Your task to perform on an android device: check google app version Image 0: 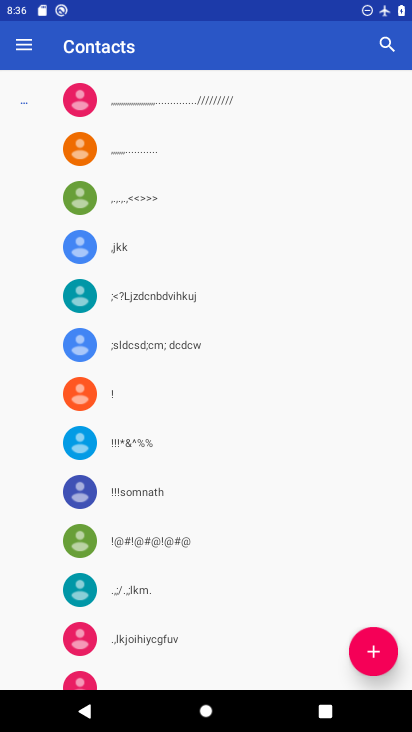
Step 0: press home button
Your task to perform on an android device: check google app version Image 1: 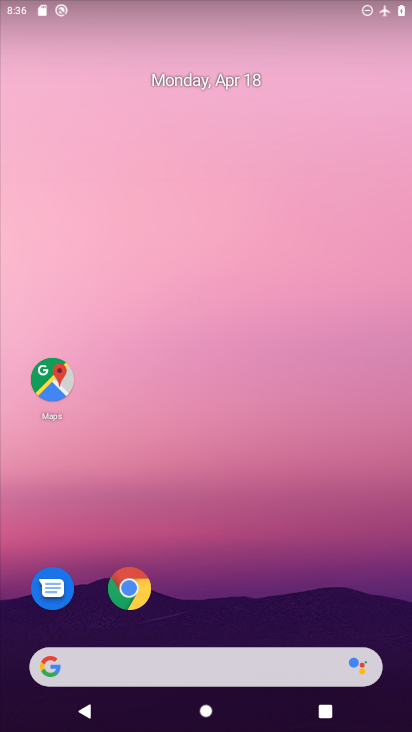
Step 1: drag from (189, 572) to (186, 68)
Your task to perform on an android device: check google app version Image 2: 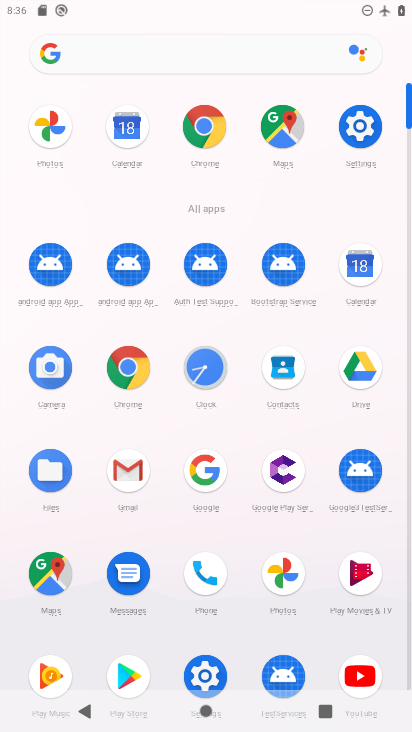
Step 2: click (203, 487)
Your task to perform on an android device: check google app version Image 3: 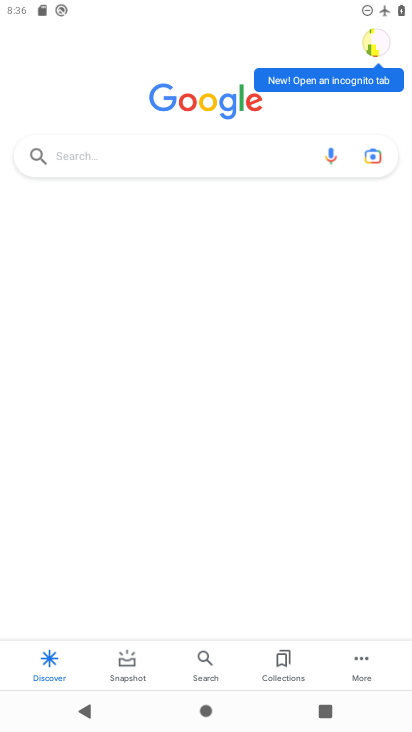
Step 3: click (375, 42)
Your task to perform on an android device: check google app version Image 4: 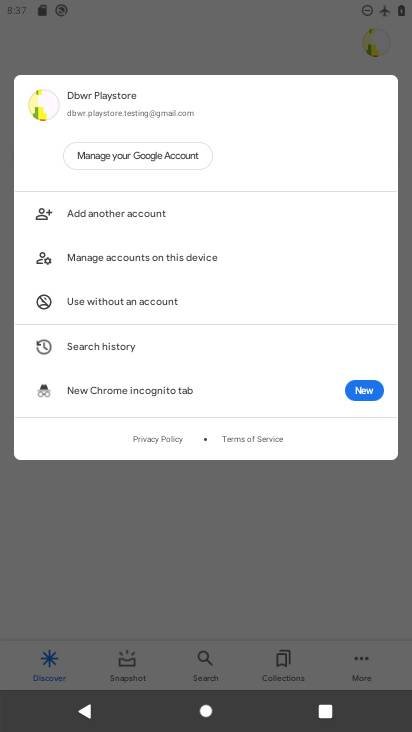
Step 4: click (123, 112)
Your task to perform on an android device: check google app version Image 5: 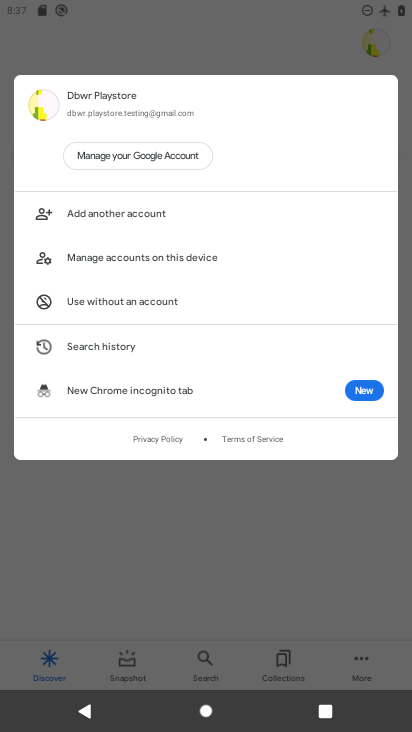
Step 5: click (132, 253)
Your task to perform on an android device: check google app version Image 6: 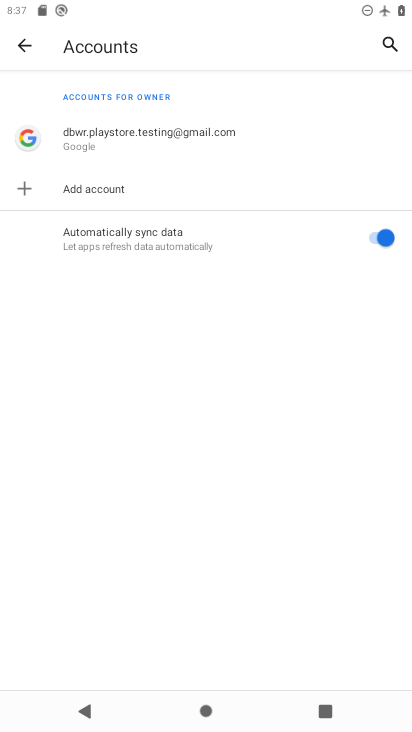
Step 6: click (166, 127)
Your task to perform on an android device: check google app version Image 7: 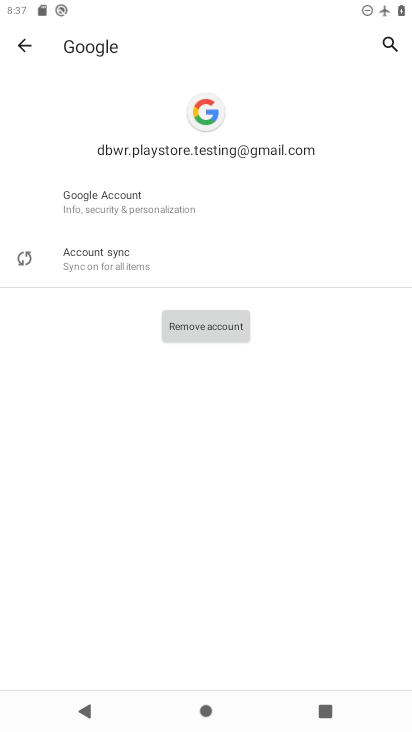
Step 7: click (144, 206)
Your task to perform on an android device: check google app version Image 8: 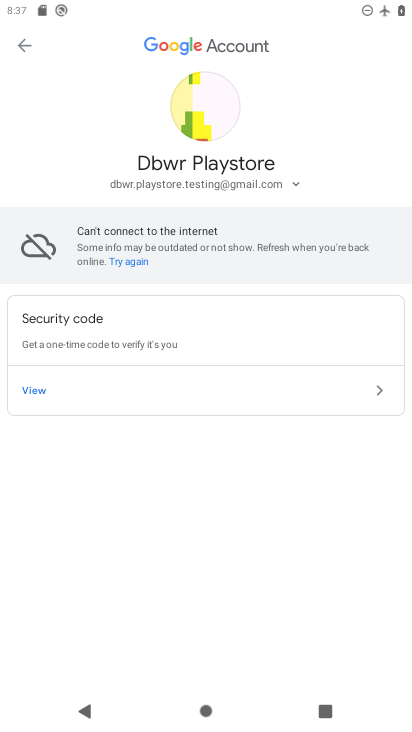
Step 8: click (22, 43)
Your task to perform on an android device: check google app version Image 9: 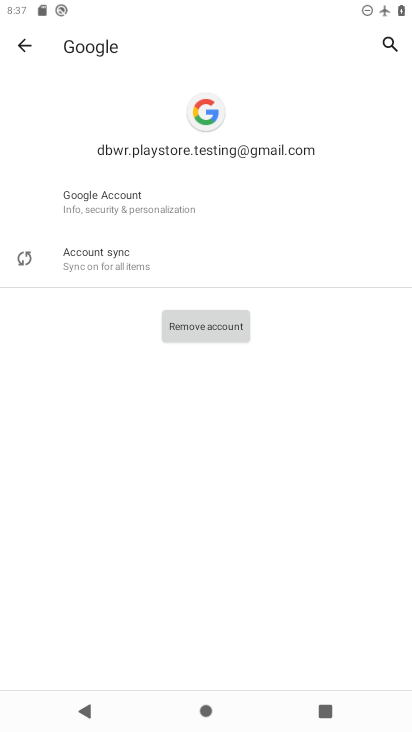
Step 9: click (22, 43)
Your task to perform on an android device: check google app version Image 10: 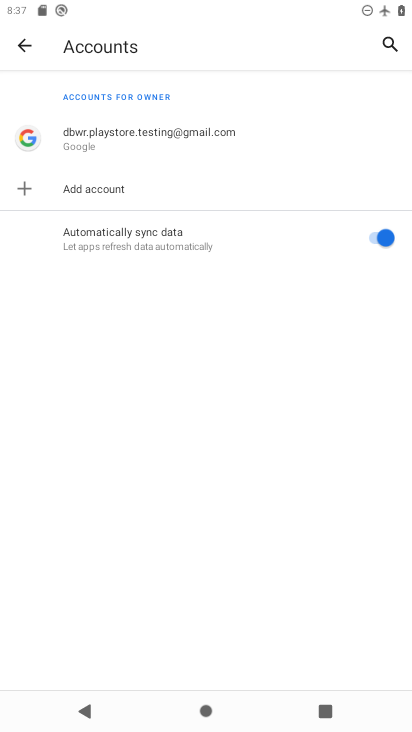
Step 10: click (22, 43)
Your task to perform on an android device: check google app version Image 11: 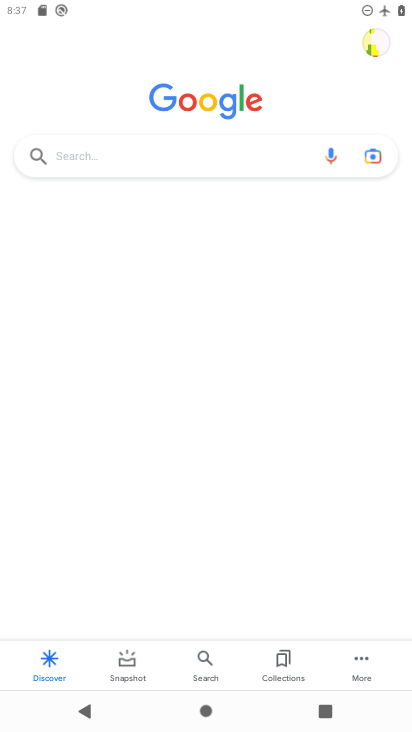
Step 11: click (364, 665)
Your task to perform on an android device: check google app version Image 12: 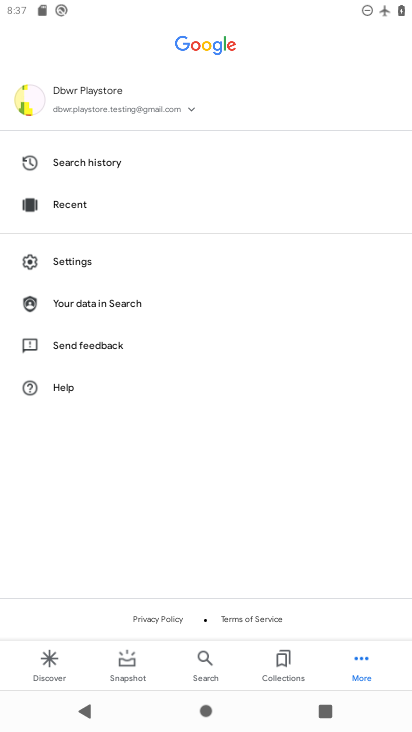
Step 12: click (67, 263)
Your task to perform on an android device: check google app version Image 13: 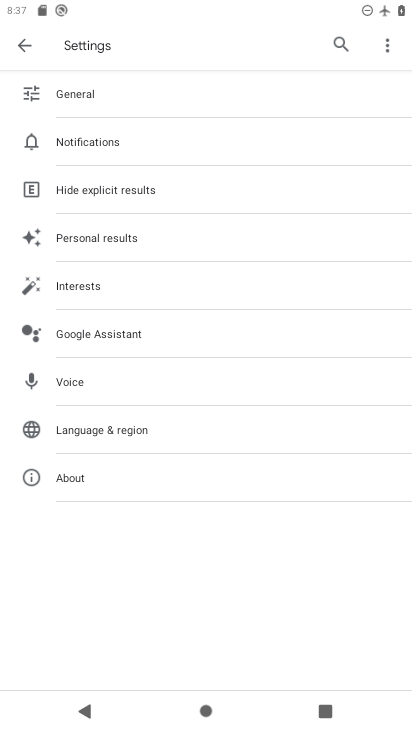
Step 13: click (76, 486)
Your task to perform on an android device: check google app version Image 14: 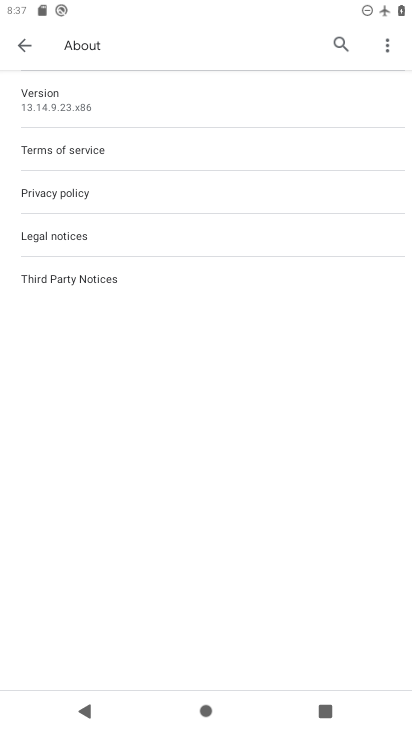
Step 14: click (56, 106)
Your task to perform on an android device: check google app version Image 15: 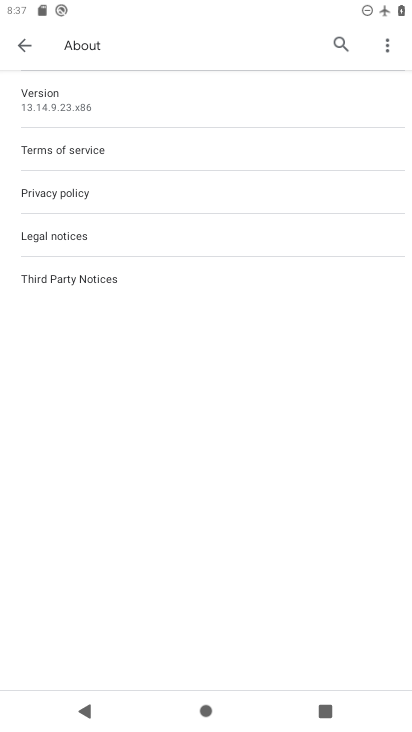
Step 15: task complete